Your task to perform on an android device: find snoozed emails in the gmail app Image 0: 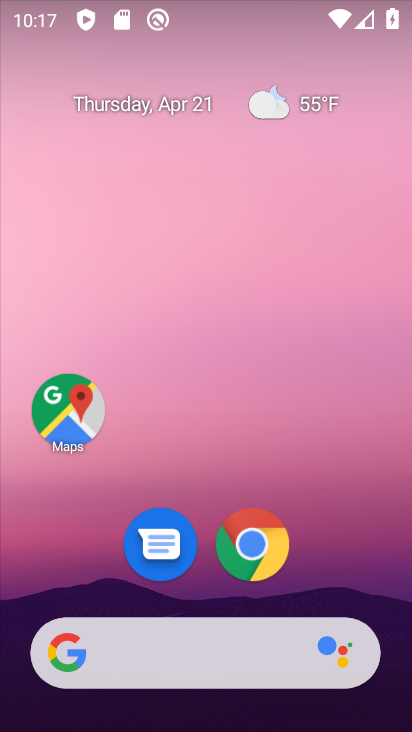
Step 0: drag from (389, 591) to (251, 91)
Your task to perform on an android device: find snoozed emails in the gmail app Image 1: 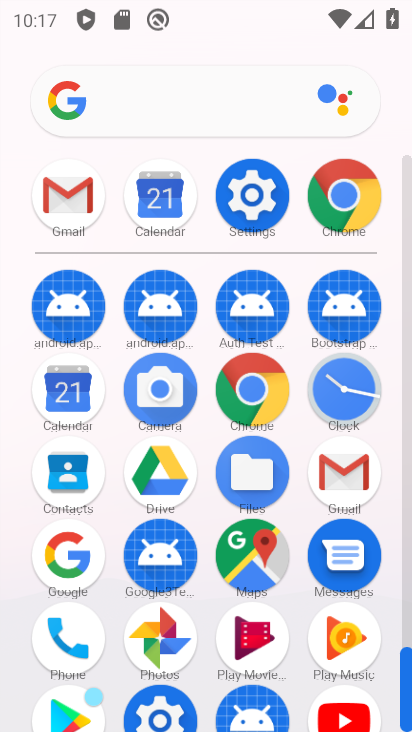
Step 1: click (346, 460)
Your task to perform on an android device: find snoozed emails in the gmail app Image 2: 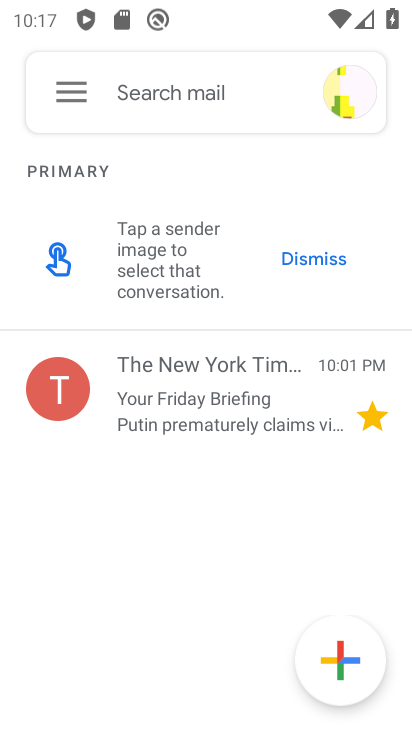
Step 2: click (56, 92)
Your task to perform on an android device: find snoozed emails in the gmail app Image 3: 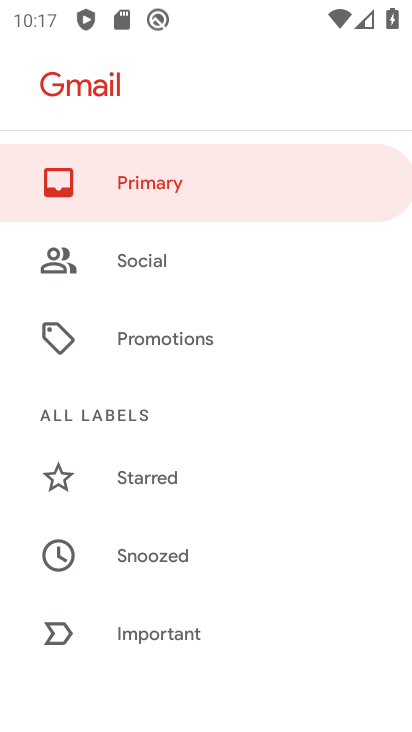
Step 3: drag from (311, 578) to (306, 144)
Your task to perform on an android device: find snoozed emails in the gmail app Image 4: 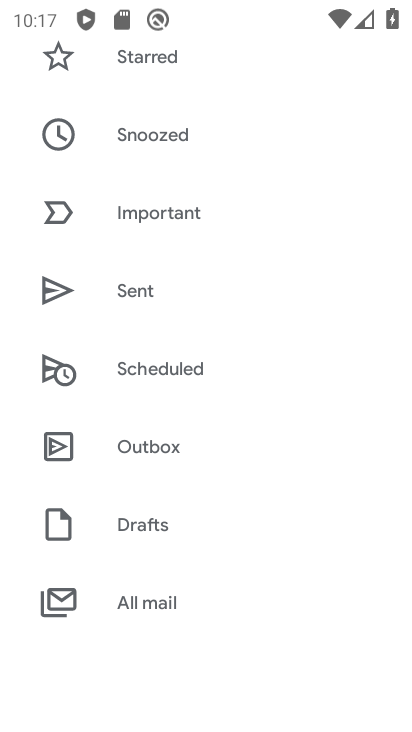
Step 4: drag from (267, 506) to (270, 62)
Your task to perform on an android device: find snoozed emails in the gmail app Image 5: 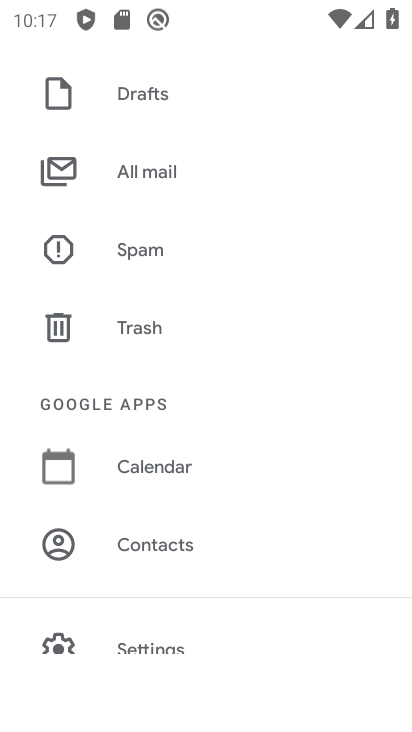
Step 5: drag from (209, 168) to (215, 537)
Your task to perform on an android device: find snoozed emails in the gmail app Image 6: 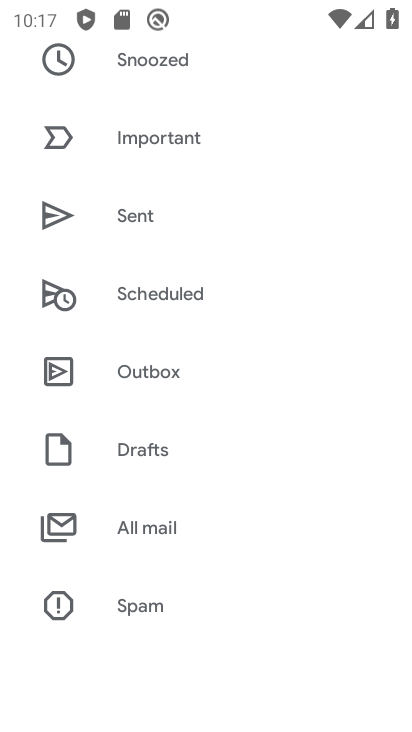
Step 6: drag from (254, 155) to (268, 528)
Your task to perform on an android device: find snoozed emails in the gmail app Image 7: 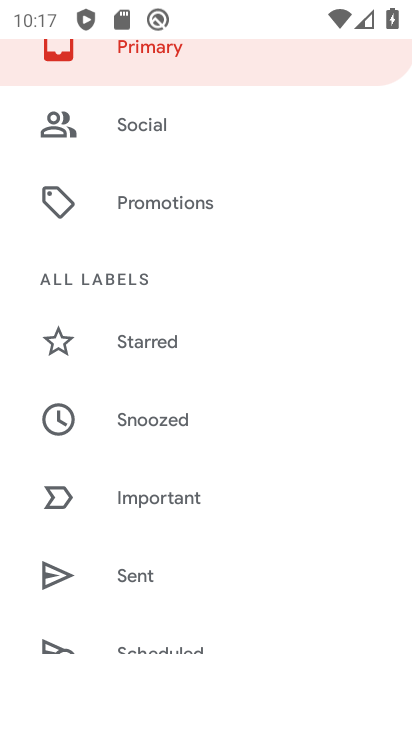
Step 7: click (179, 423)
Your task to perform on an android device: find snoozed emails in the gmail app Image 8: 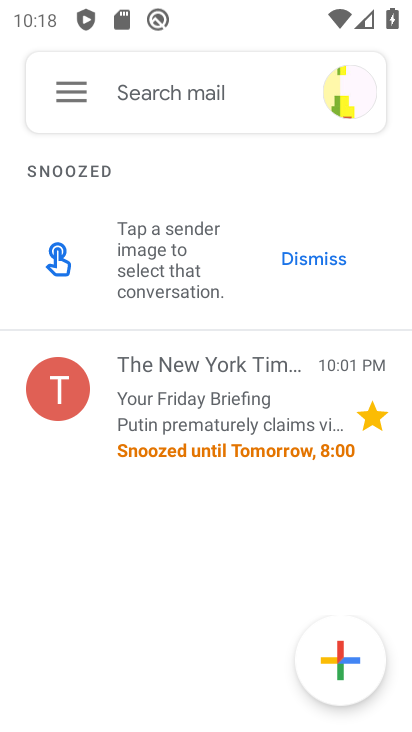
Step 8: click (89, 80)
Your task to perform on an android device: find snoozed emails in the gmail app Image 9: 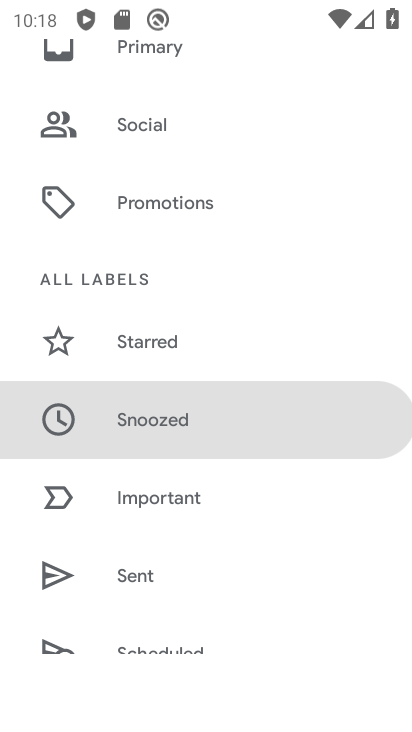
Step 9: click (235, 412)
Your task to perform on an android device: find snoozed emails in the gmail app Image 10: 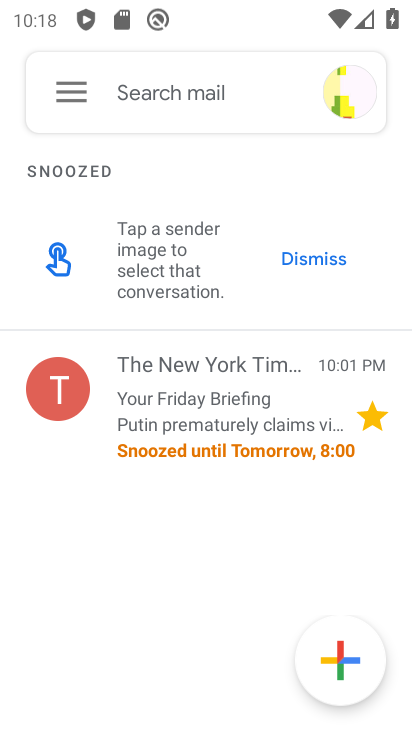
Step 10: task complete